Your task to perform on an android device: Open Maps and search for coffee Image 0: 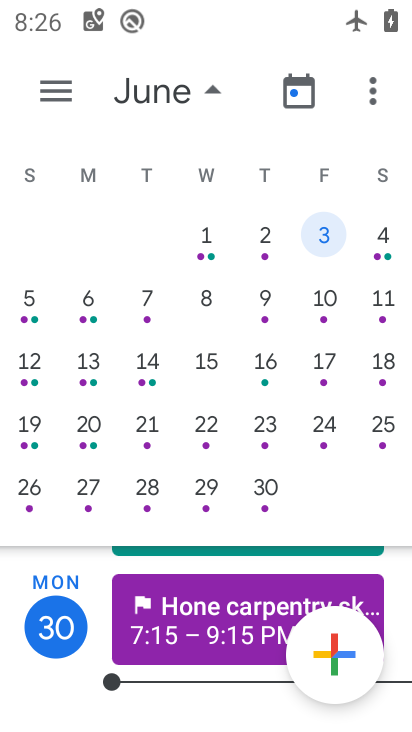
Step 0: press home button
Your task to perform on an android device: Open Maps and search for coffee Image 1: 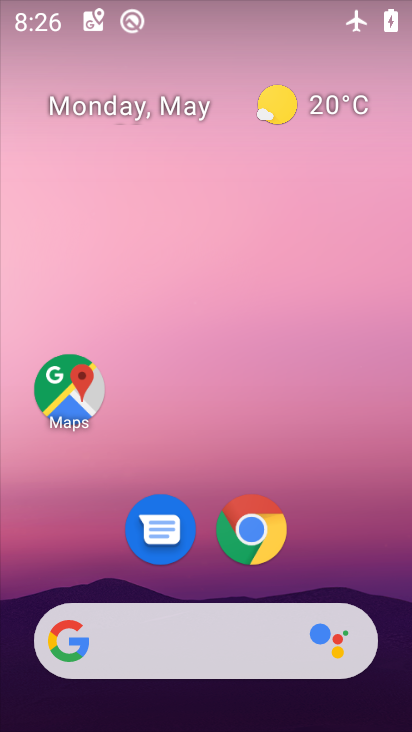
Step 1: click (58, 374)
Your task to perform on an android device: Open Maps and search for coffee Image 2: 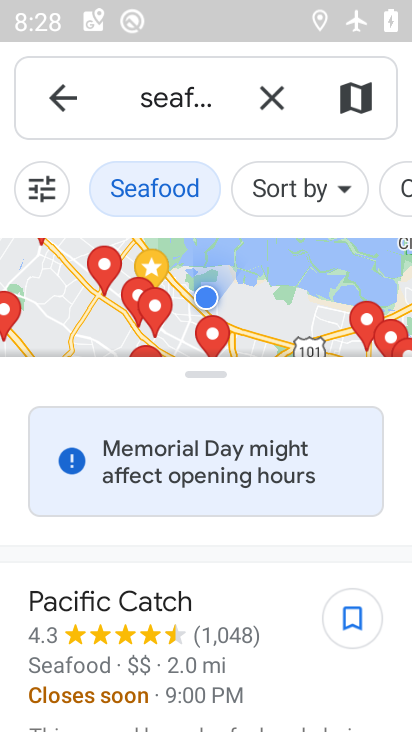
Step 2: click (263, 105)
Your task to perform on an android device: Open Maps and search for coffee Image 3: 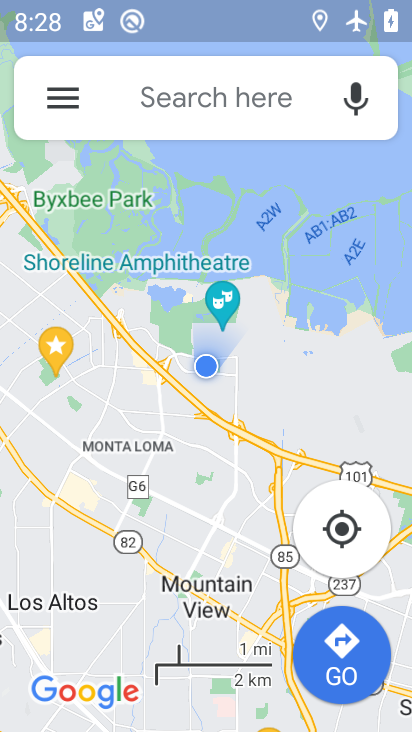
Step 3: click (145, 105)
Your task to perform on an android device: Open Maps and search for coffee Image 4: 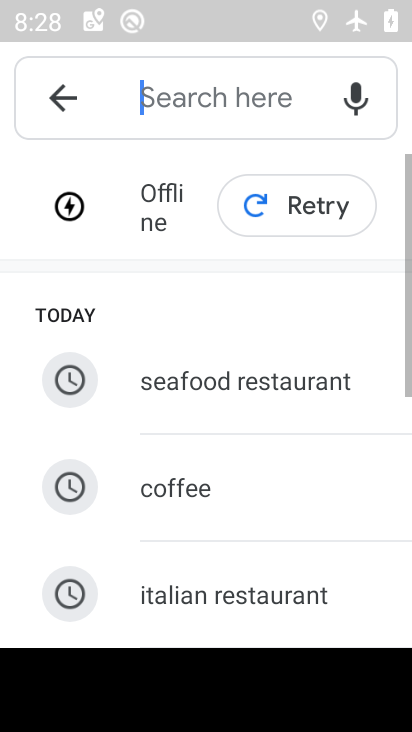
Step 4: click (164, 490)
Your task to perform on an android device: Open Maps and search for coffee Image 5: 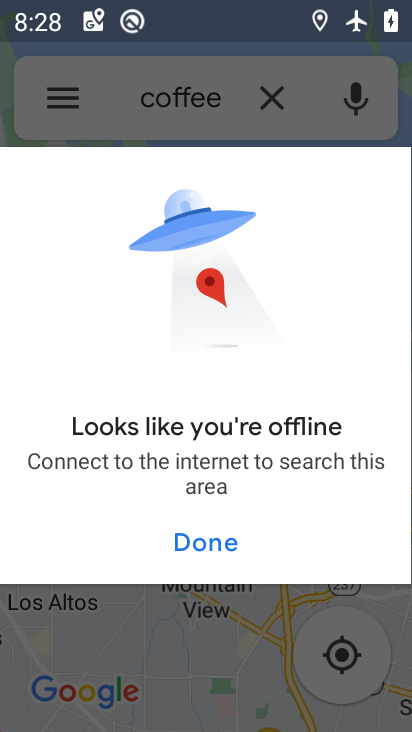
Step 5: task complete